Your task to perform on an android device: Open battery settings Image 0: 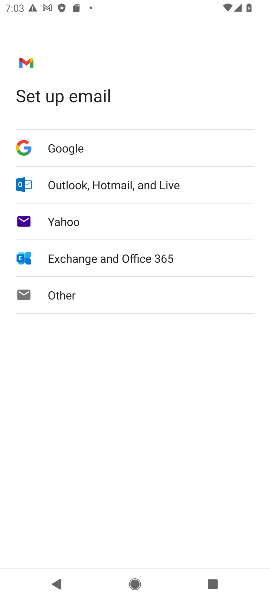
Step 0: press home button
Your task to perform on an android device: Open battery settings Image 1: 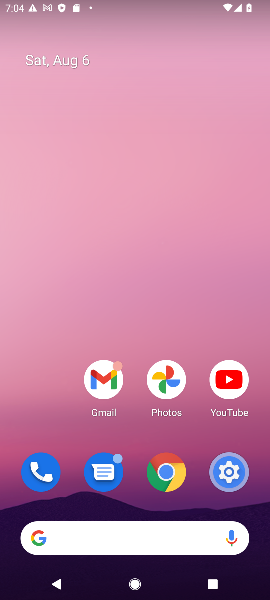
Step 1: click (231, 469)
Your task to perform on an android device: Open battery settings Image 2: 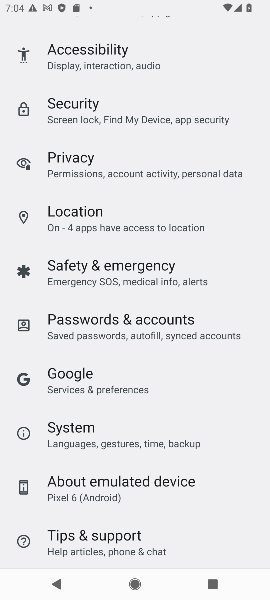
Step 2: drag from (237, 155) to (232, 445)
Your task to perform on an android device: Open battery settings Image 3: 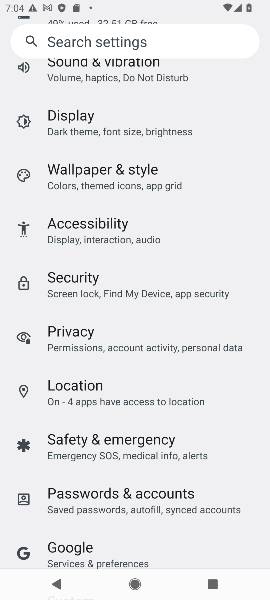
Step 3: drag from (234, 142) to (235, 405)
Your task to perform on an android device: Open battery settings Image 4: 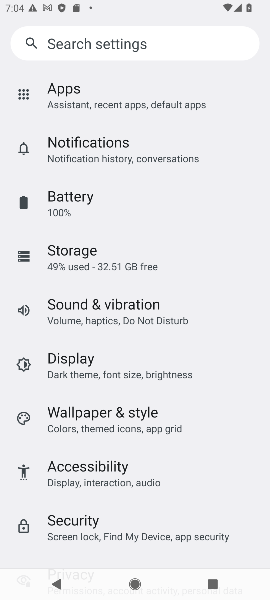
Step 4: drag from (204, 191) to (204, 462)
Your task to perform on an android device: Open battery settings Image 5: 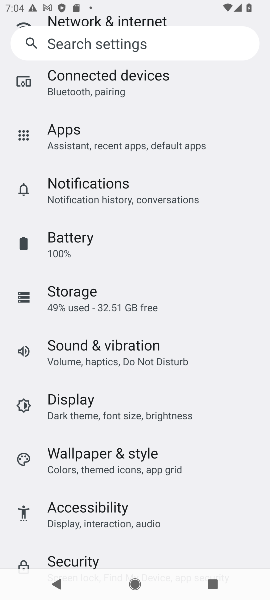
Step 5: click (63, 248)
Your task to perform on an android device: Open battery settings Image 6: 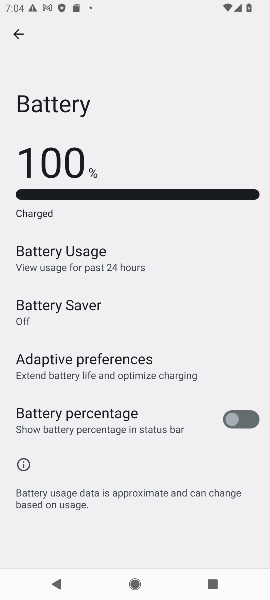
Step 6: task complete